Your task to perform on an android device: Open privacy settings Image 0: 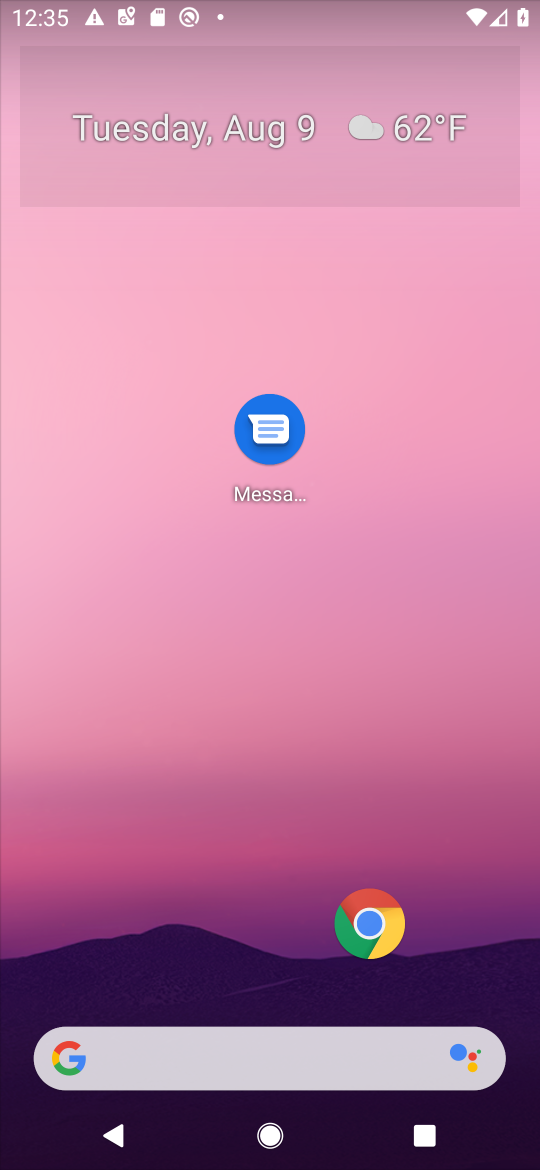
Step 0: drag from (44, 1120) to (250, 610)
Your task to perform on an android device: Open privacy settings Image 1: 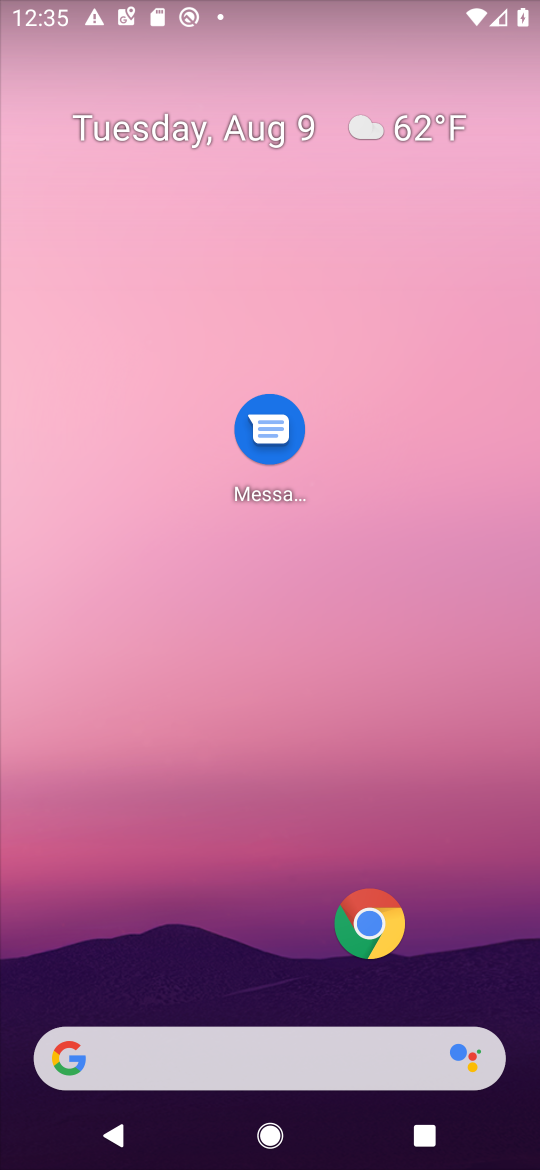
Step 1: drag from (55, 1125) to (182, 407)
Your task to perform on an android device: Open privacy settings Image 2: 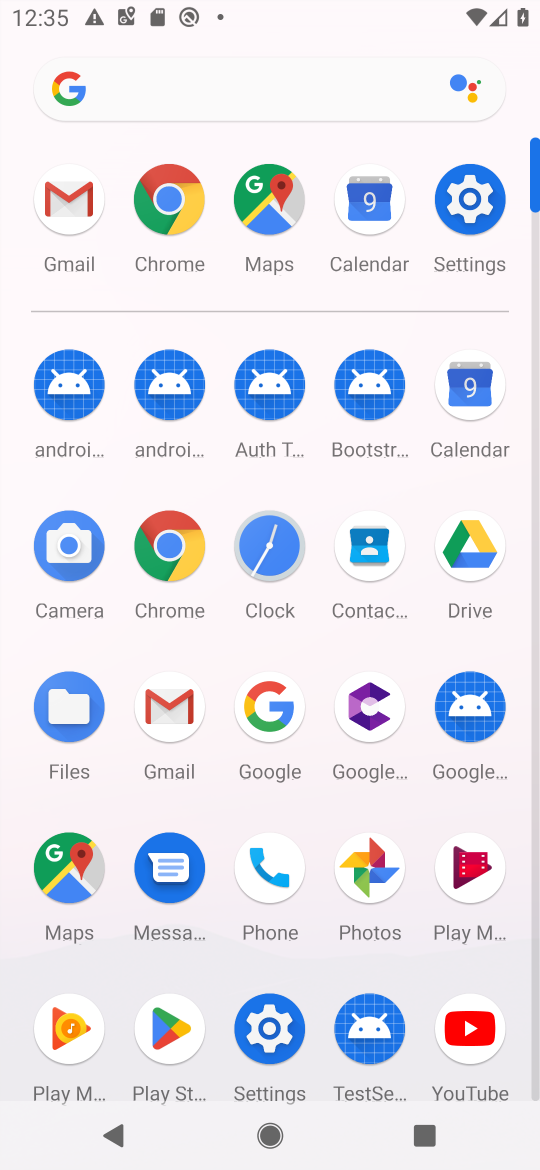
Step 2: click (265, 1044)
Your task to perform on an android device: Open privacy settings Image 3: 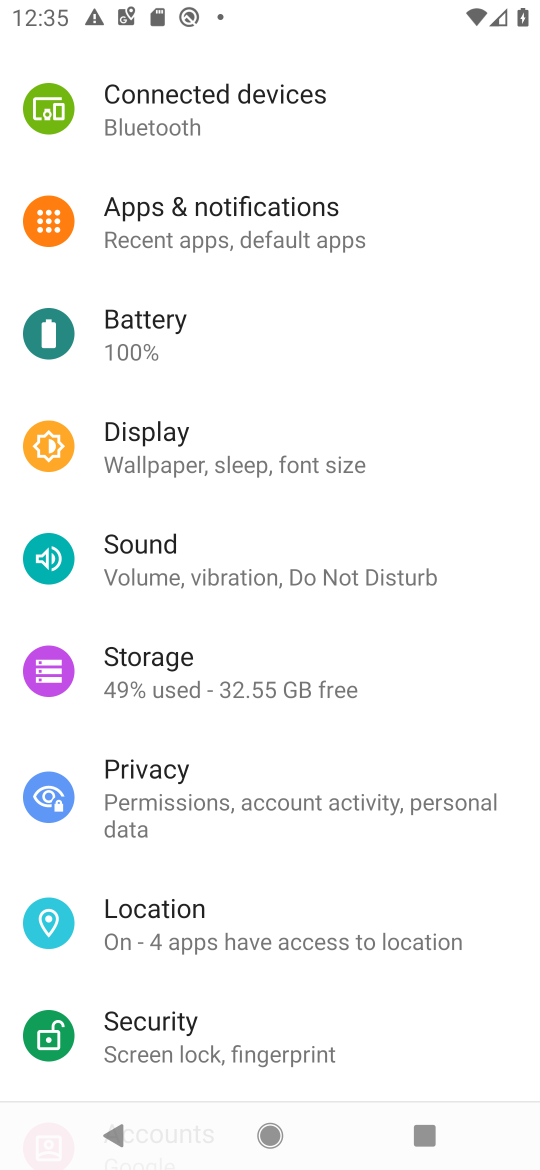
Step 3: click (180, 791)
Your task to perform on an android device: Open privacy settings Image 4: 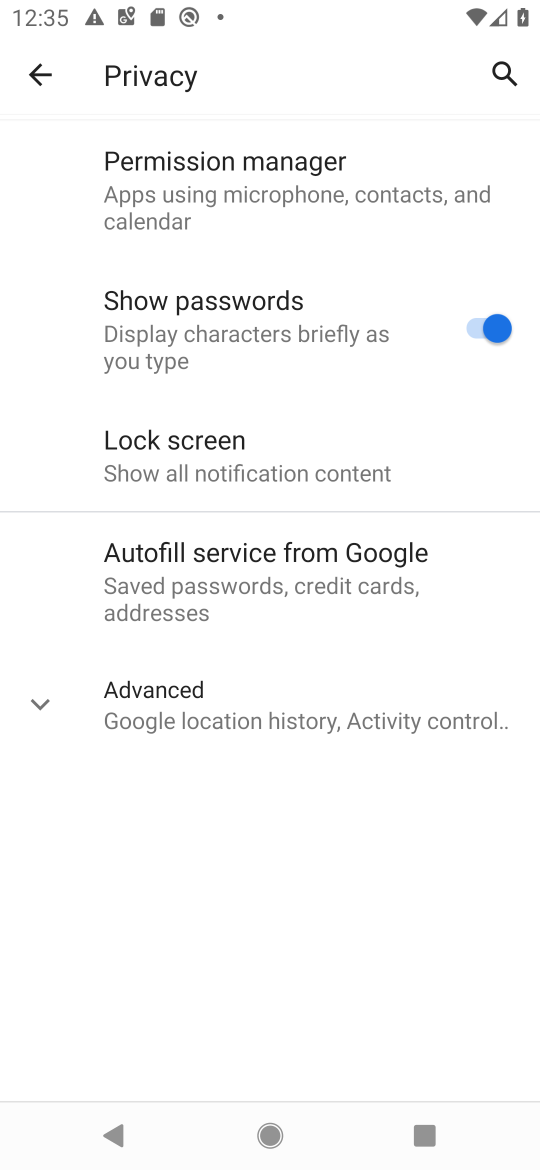
Step 4: task complete